Your task to perform on an android device: Open wifi settings Image 0: 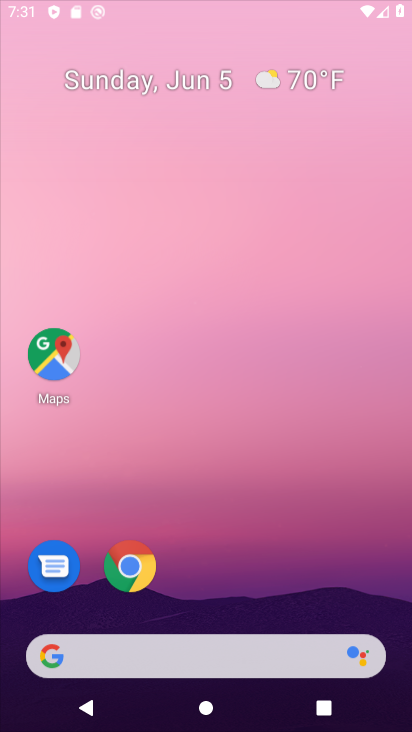
Step 0: click (167, 28)
Your task to perform on an android device: Open wifi settings Image 1: 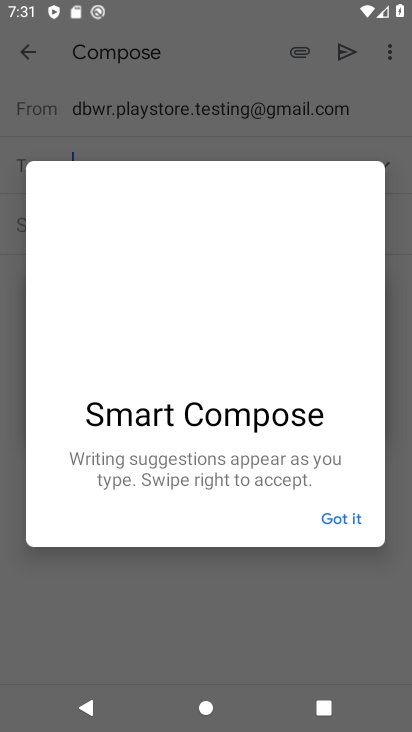
Step 1: press home button
Your task to perform on an android device: Open wifi settings Image 2: 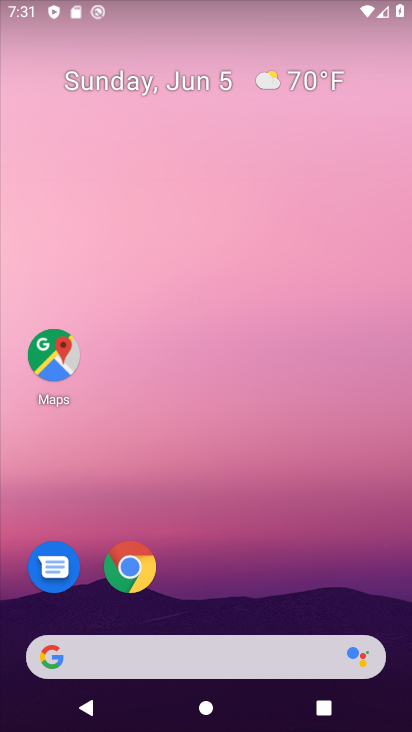
Step 2: drag from (207, 561) to (187, 213)
Your task to perform on an android device: Open wifi settings Image 3: 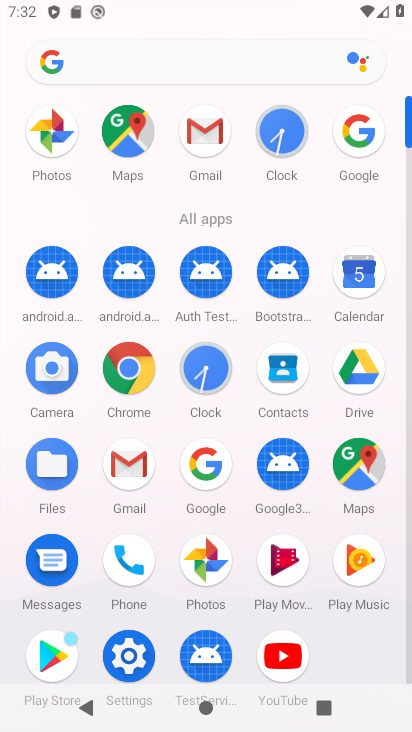
Step 3: click (135, 682)
Your task to perform on an android device: Open wifi settings Image 4: 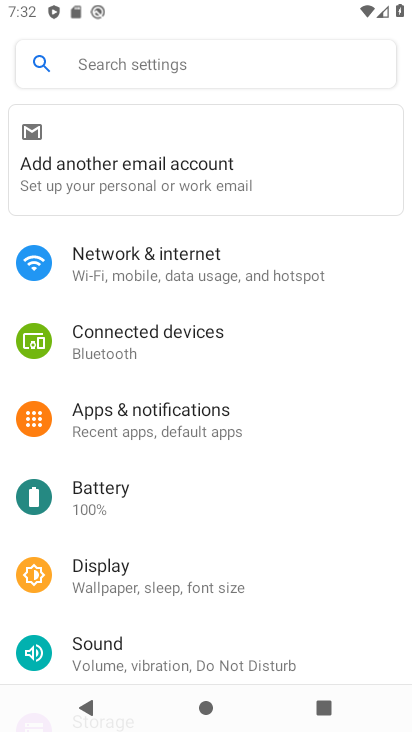
Step 4: drag from (139, 590) to (160, 247)
Your task to perform on an android device: Open wifi settings Image 5: 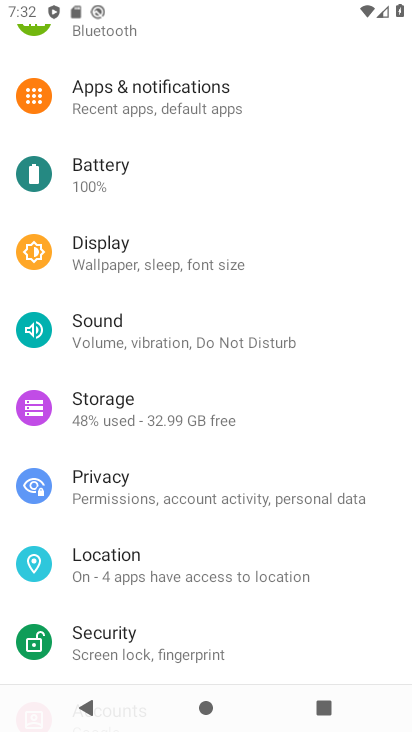
Step 5: click (139, 569)
Your task to perform on an android device: Open wifi settings Image 6: 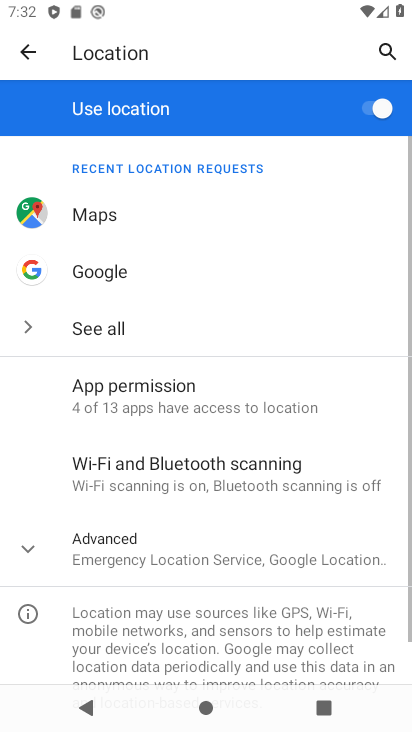
Step 6: click (120, 561)
Your task to perform on an android device: Open wifi settings Image 7: 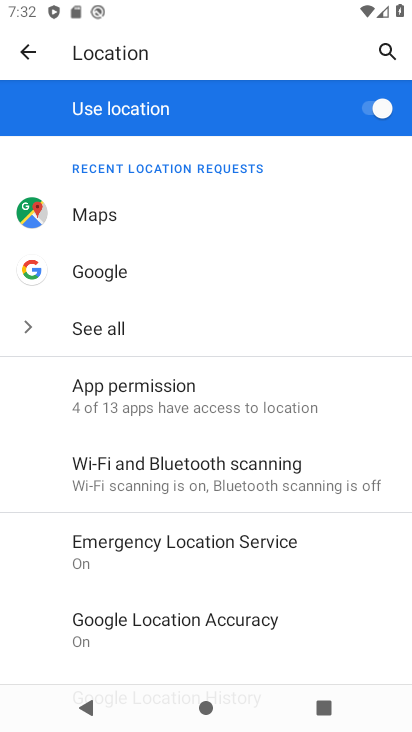
Step 7: drag from (121, 634) to (163, 353)
Your task to perform on an android device: Open wifi settings Image 8: 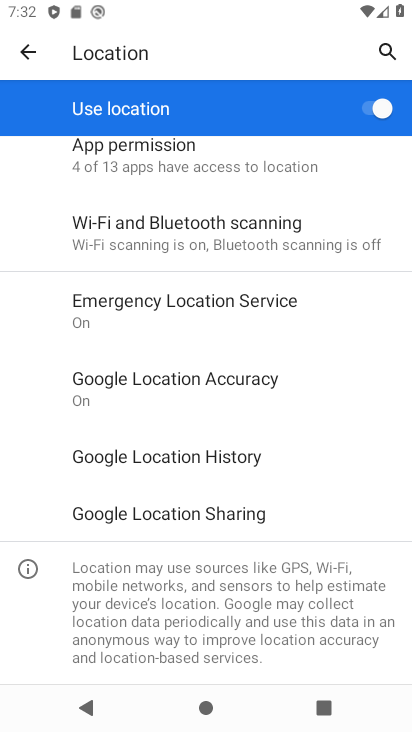
Step 8: click (157, 222)
Your task to perform on an android device: Open wifi settings Image 9: 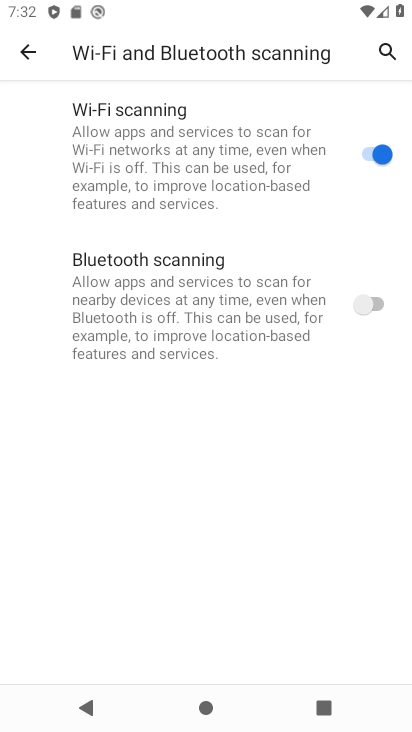
Step 9: press back button
Your task to perform on an android device: Open wifi settings Image 10: 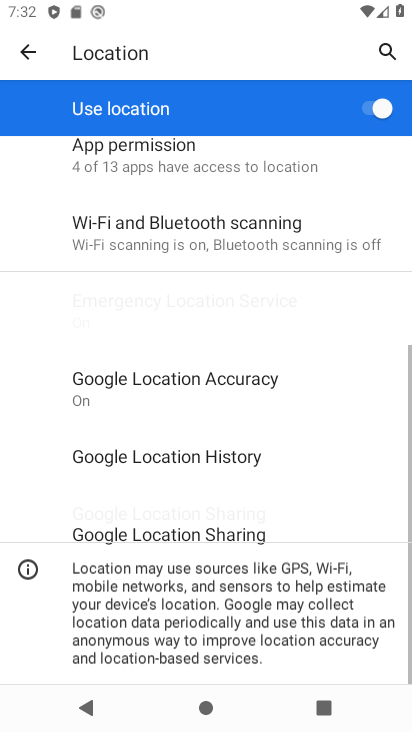
Step 10: press back button
Your task to perform on an android device: Open wifi settings Image 11: 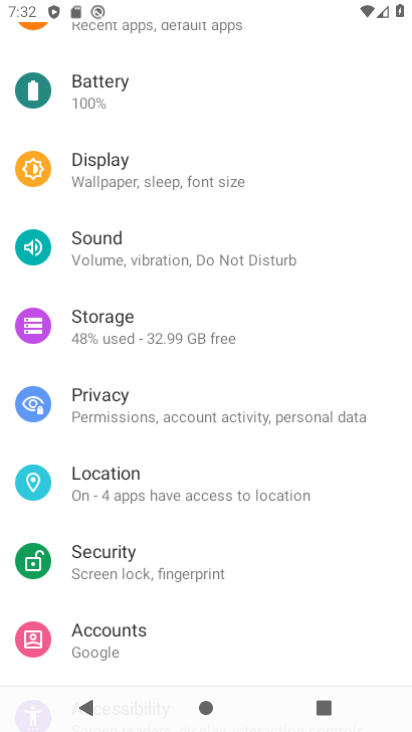
Step 11: press back button
Your task to perform on an android device: Open wifi settings Image 12: 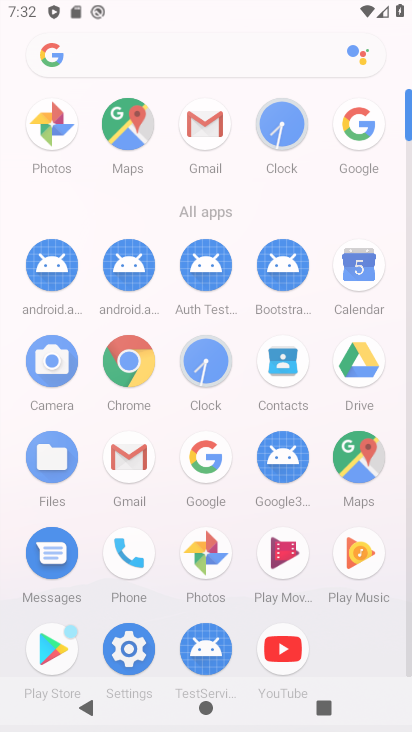
Step 12: drag from (136, 224) to (83, 569)
Your task to perform on an android device: Open wifi settings Image 13: 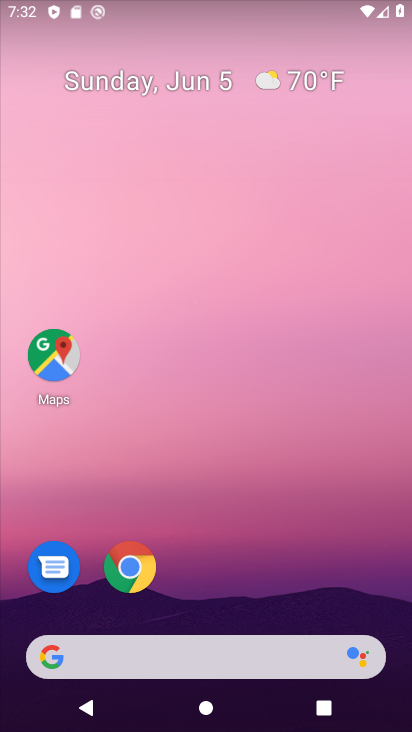
Step 13: drag from (231, 602) to (215, 139)
Your task to perform on an android device: Open wifi settings Image 14: 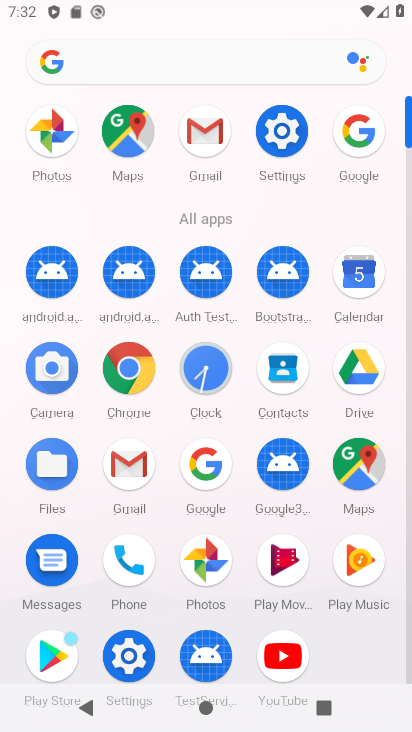
Step 14: click (282, 142)
Your task to perform on an android device: Open wifi settings Image 15: 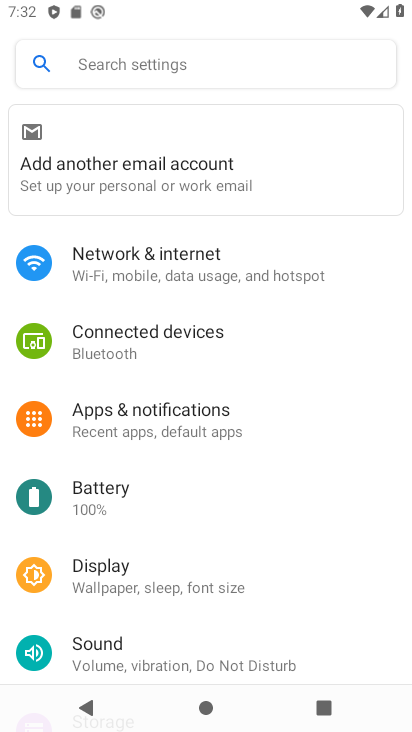
Step 15: click (168, 272)
Your task to perform on an android device: Open wifi settings Image 16: 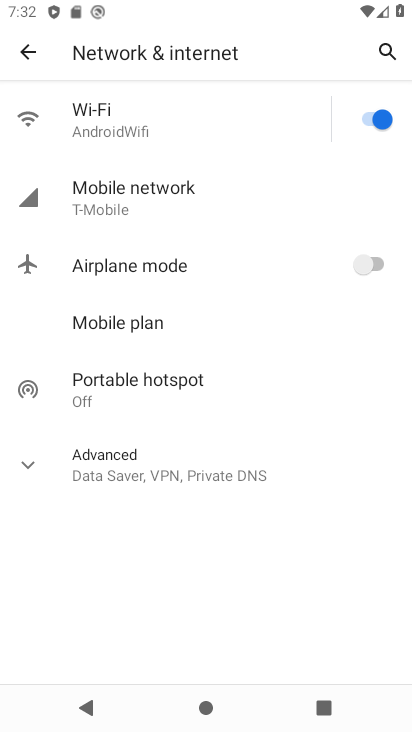
Step 16: click (141, 116)
Your task to perform on an android device: Open wifi settings Image 17: 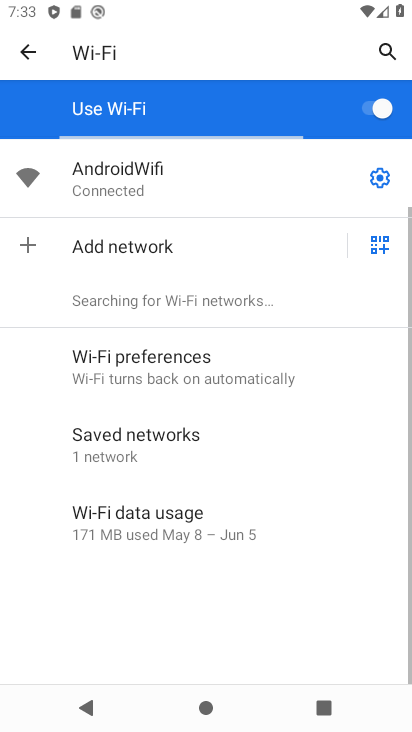
Step 17: task complete